Your task to perform on an android device: Go to display settings Image 0: 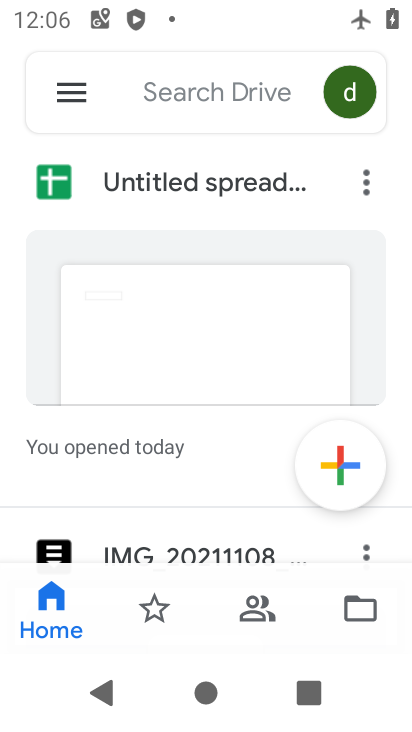
Step 0: press home button
Your task to perform on an android device: Go to display settings Image 1: 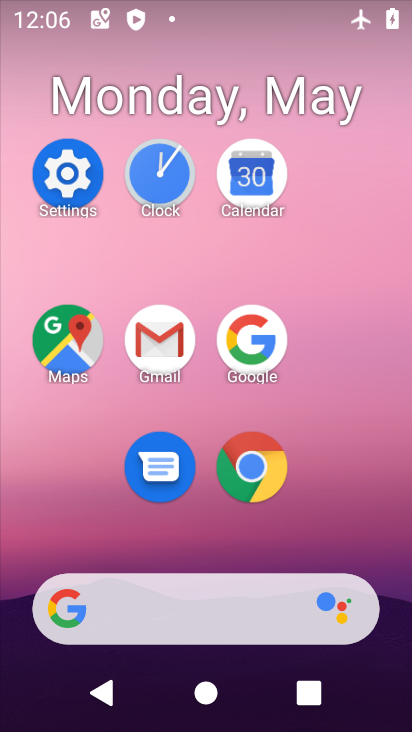
Step 1: click (75, 181)
Your task to perform on an android device: Go to display settings Image 2: 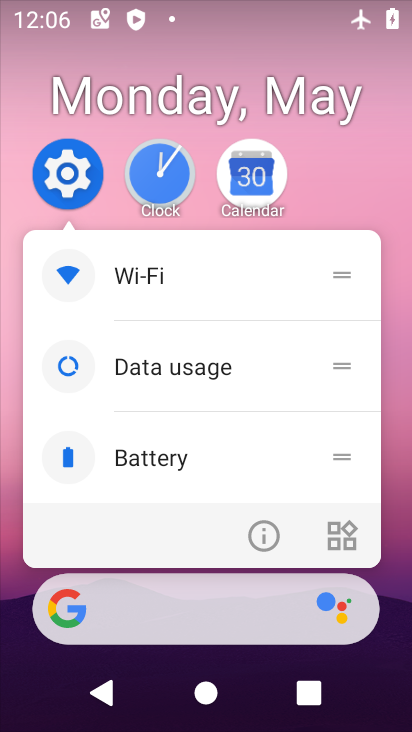
Step 2: click (66, 153)
Your task to perform on an android device: Go to display settings Image 3: 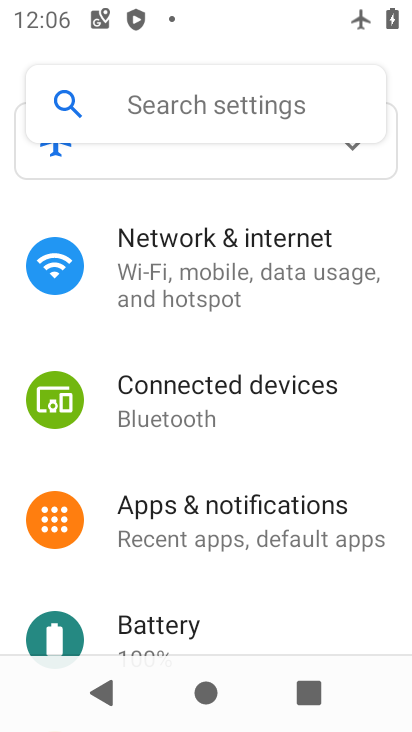
Step 3: drag from (265, 550) to (237, 163)
Your task to perform on an android device: Go to display settings Image 4: 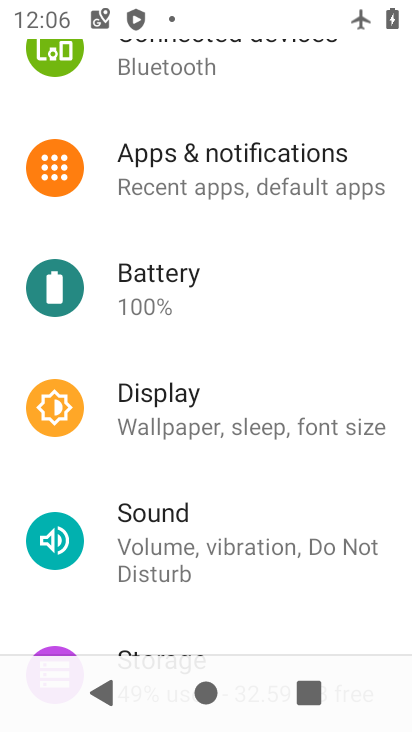
Step 4: click (250, 420)
Your task to perform on an android device: Go to display settings Image 5: 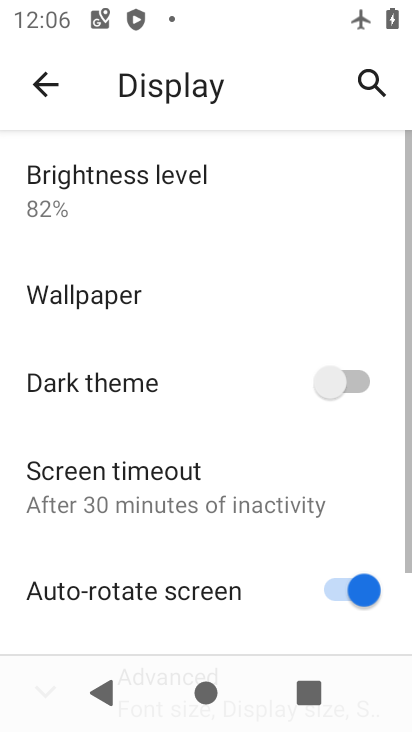
Step 5: task complete